Your task to perform on an android device: turn notification dots on Image 0: 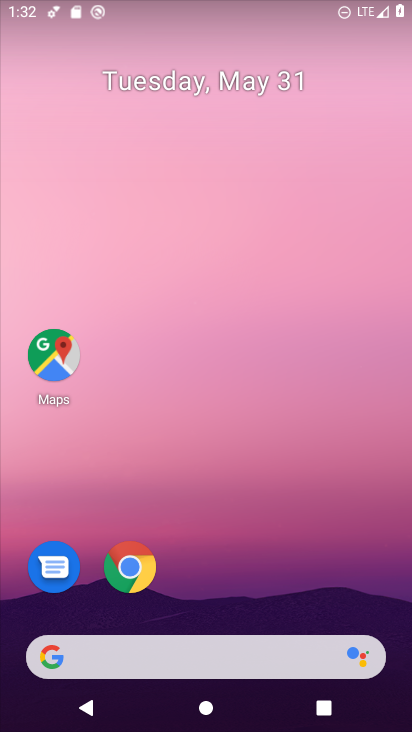
Step 0: drag from (199, 598) to (203, 221)
Your task to perform on an android device: turn notification dots on Image 1: 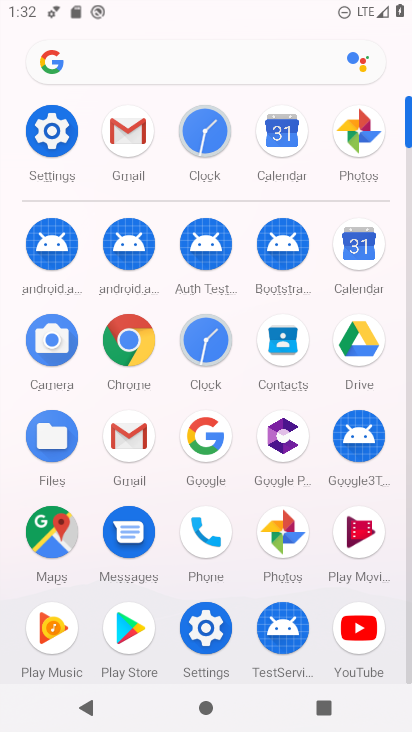
Step 1: click (60, 132)
Your task to perform on an android device: turn notification dots on Image 2: 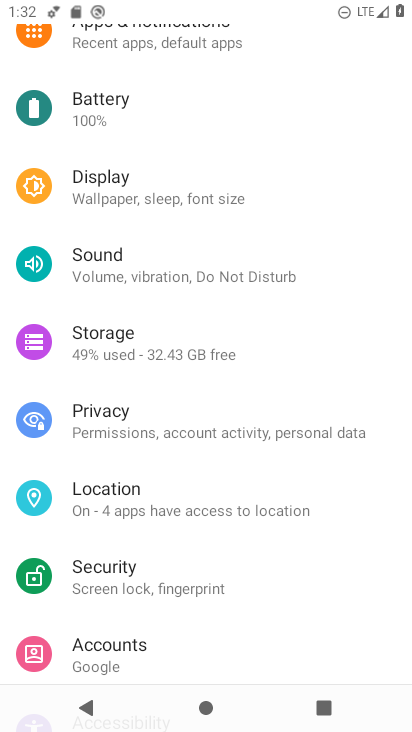
Step 2: drag from (186, 598) to (196, 312)
Your task to perform on an android device: turn notification dots on Image 3: 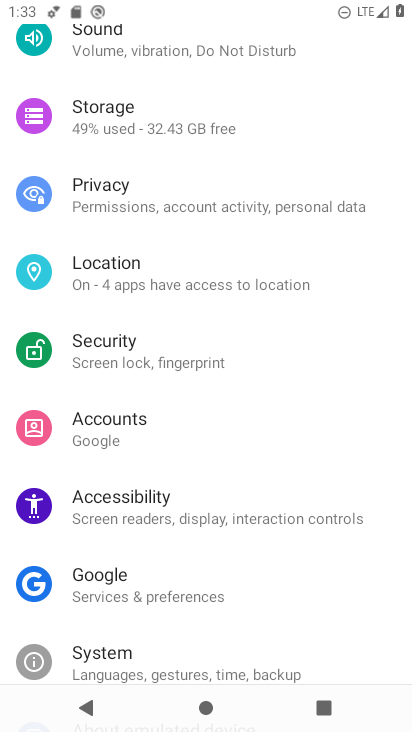
Step 3: drag from (193, 163) to (195, 532)
Your task to perform on an android device: turn notification dots on Image 4: 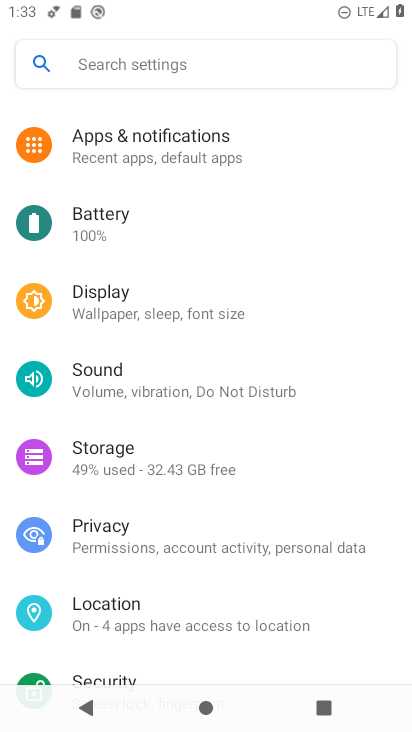
Step 4: click (212, 167)
Your task to perform on an android device: turn notification dots on Image 5: 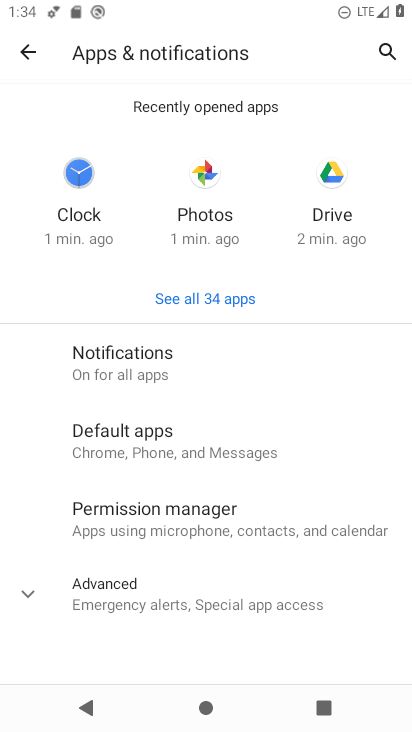
Step 5: click (175, 371)
Your task to perform on an android device: turn notification dots on Image 6: 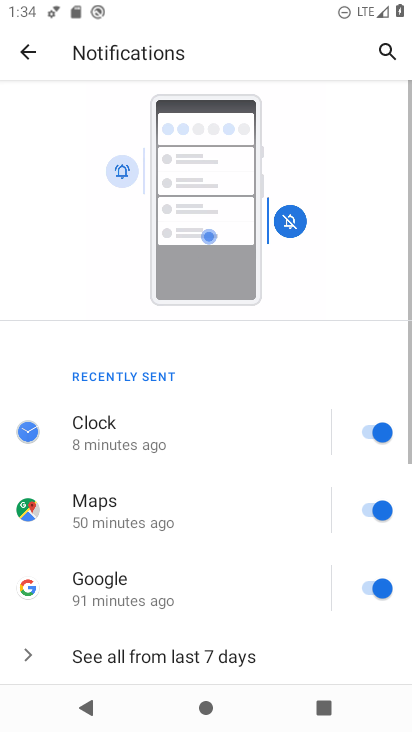
Step 6: drag from (189, 593) to (173, 266)
Your task to perform on an android device: turn notification dots on Image 7: 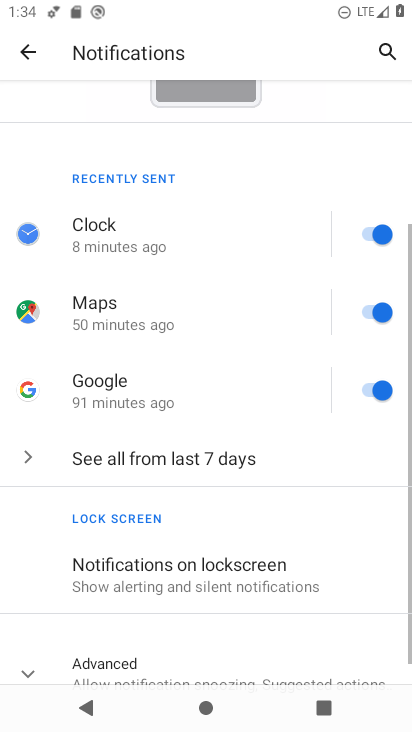
Step 7: drag from (174, 582) to (158, 298)
Your task to perform on an android device: turn notification dots on Image 8: 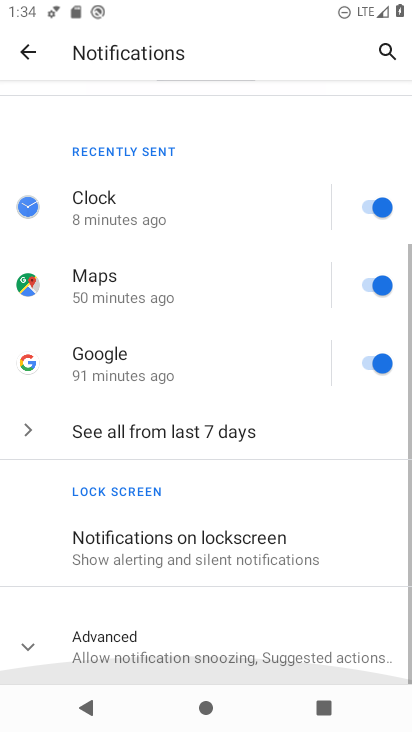
Step 8: drag from (168, 650) to (158, 407)
Your task to perform on an android device: turn notification dots on Image 9: 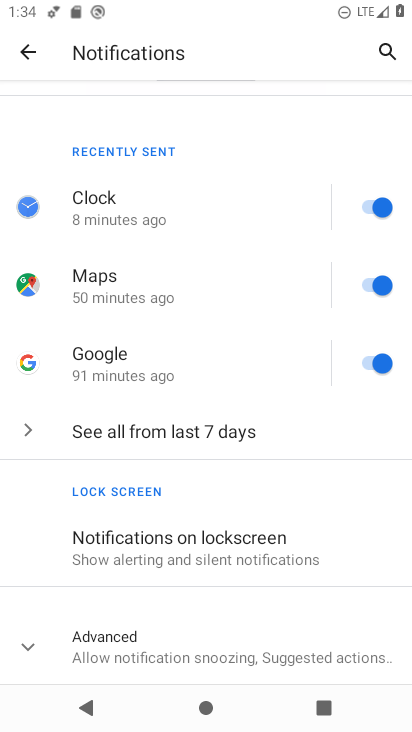
Step 9: click (182, 661)
Your task to perform on an android device: turn notification dots on Image 10: 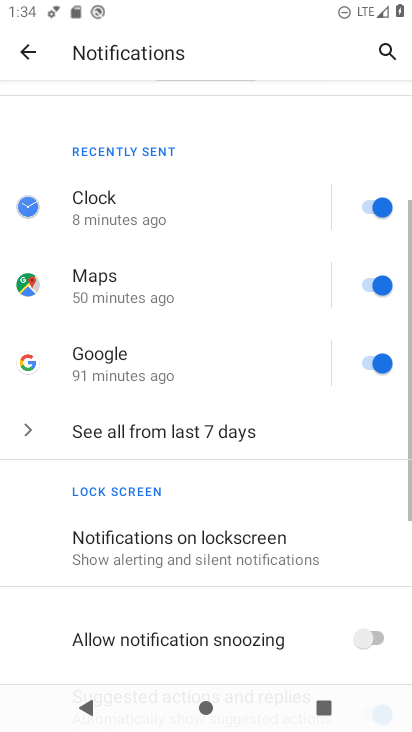
Step 10: drag from (185, 657) to (154, 357)
Your task to perform on an android device: turn notification dots on Image 11: 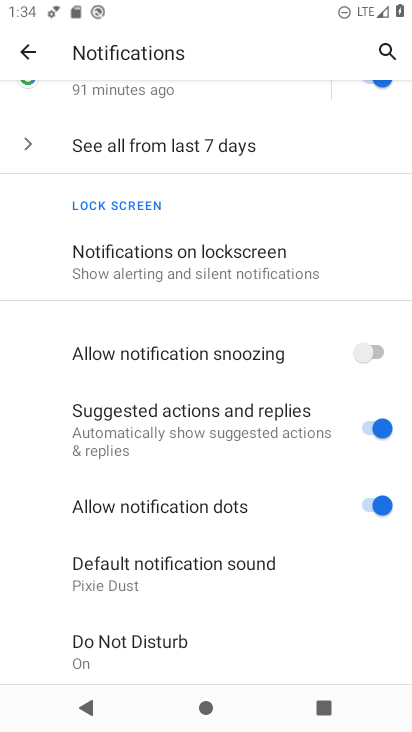
Step 11: drag from (219, 648) to (203, 479)
Your task to perform on an android device: turn notification dots on Image 12: 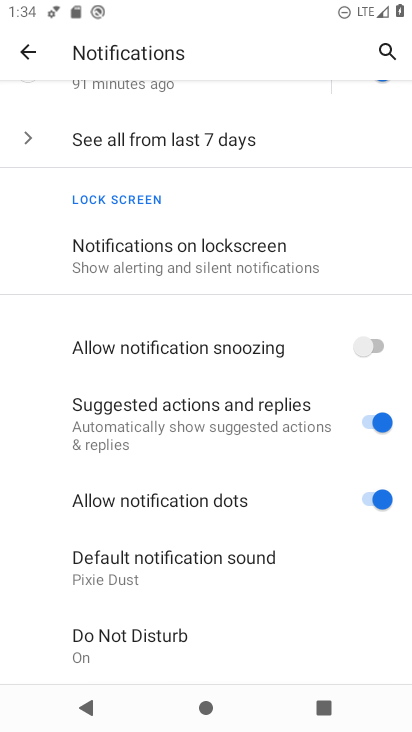
Step 12: click (132, 622)
Your task to perform on an android device: turn notification dots on Image 13: 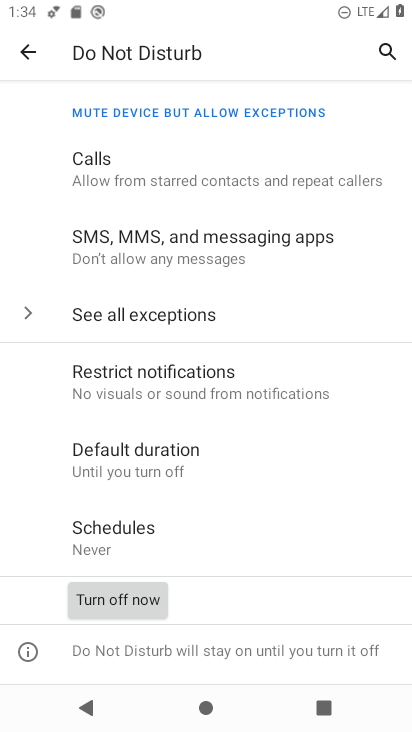
Step 13: task complete